Your task to perform on an android device: Show the shopping cart on amazon.com. Add corsair k70 to the cart on amazon.com Image 0: 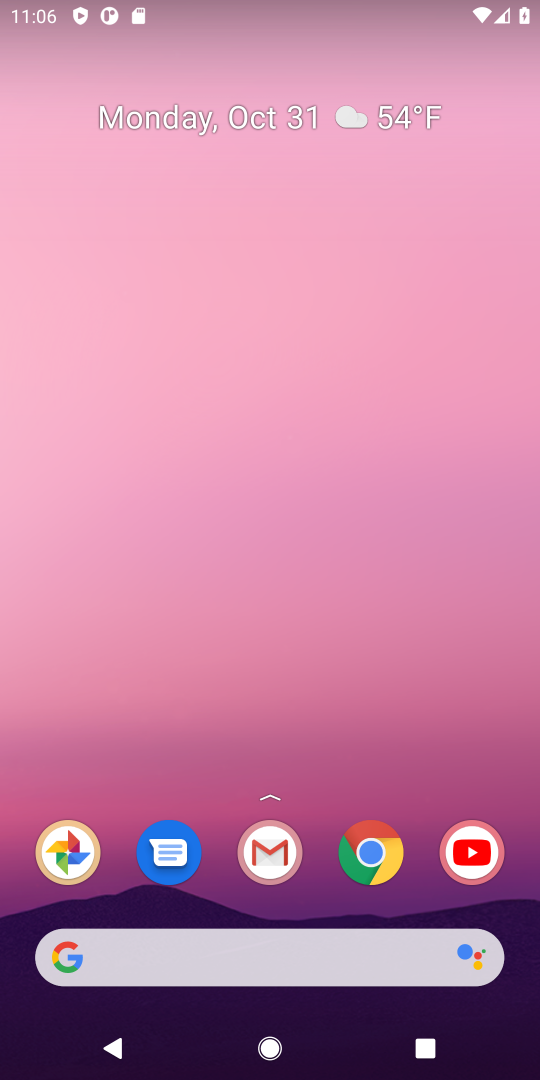
Step 0: click (373, 854)
Your task to perform on an android device: Show the shopping cart on amazon.com. Add corsair k70 to the cart on amazon.com Image 1: 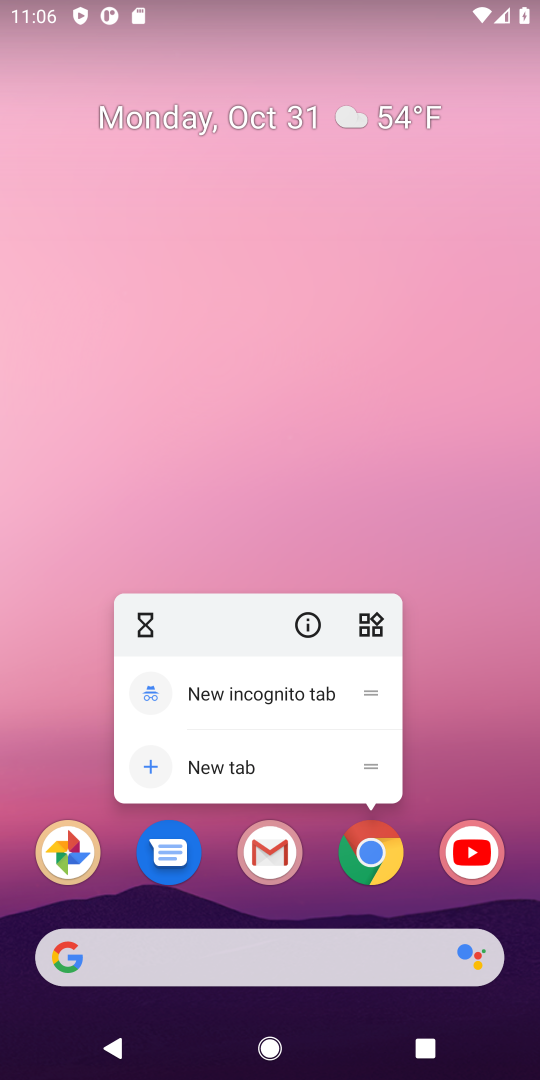
Step 1: click (375, 861)
Your task to perform on an android device: Show the shopping cart on amazon.com. Add corsair k70 to the cart on amazon.com Image 2: 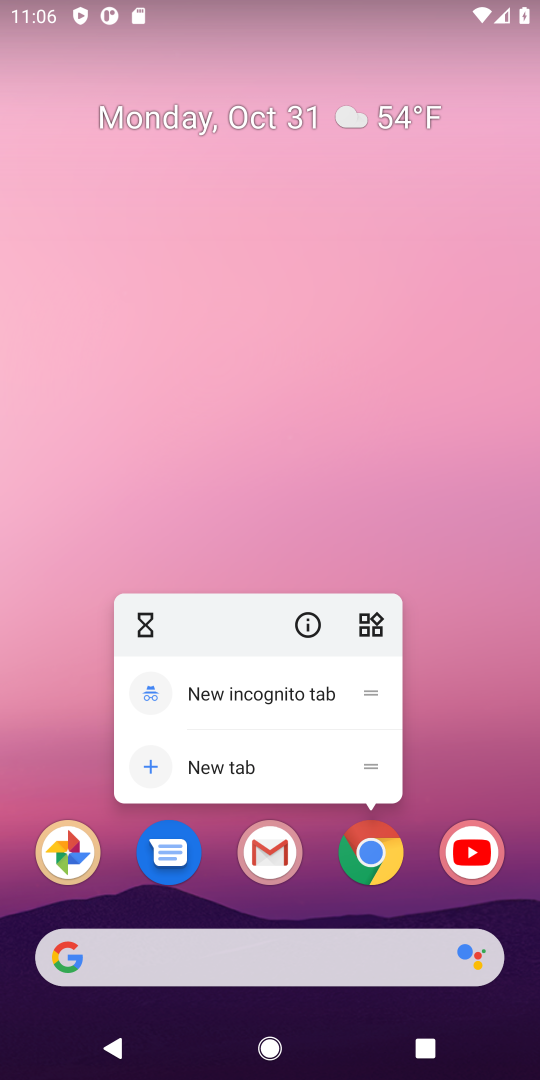
Step 2: click (360, 881)
Your task to perform on an android device: Show the shopping cart on amazon.com. Add corsair k70 to the cart on amazon.com Image 3: 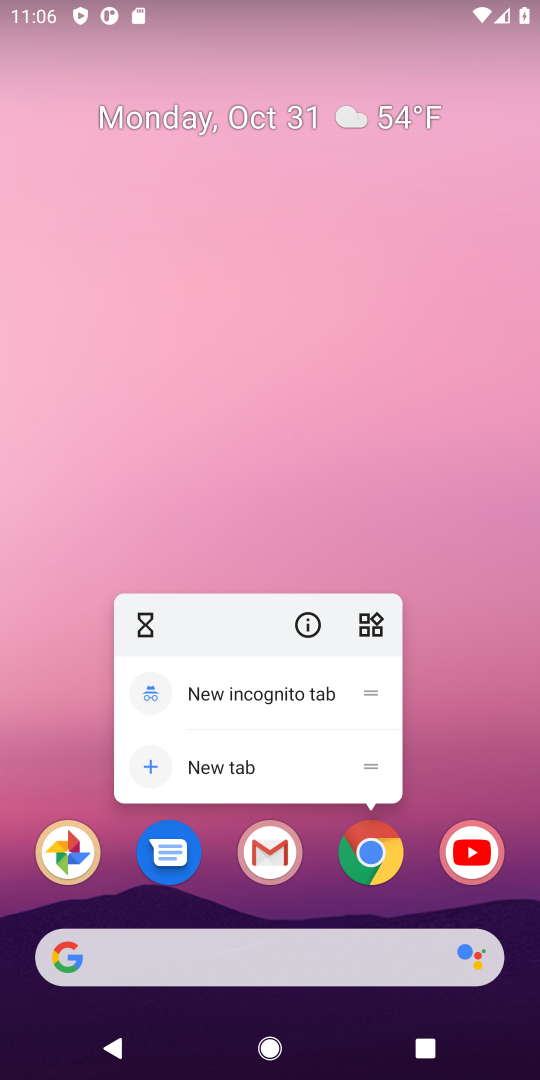
Step 3: click (379, 863)
Your task to perform on an android device: Show the shopping cart on amazon.com. Add corsair k70 to the cart on amazon.com Image 4: 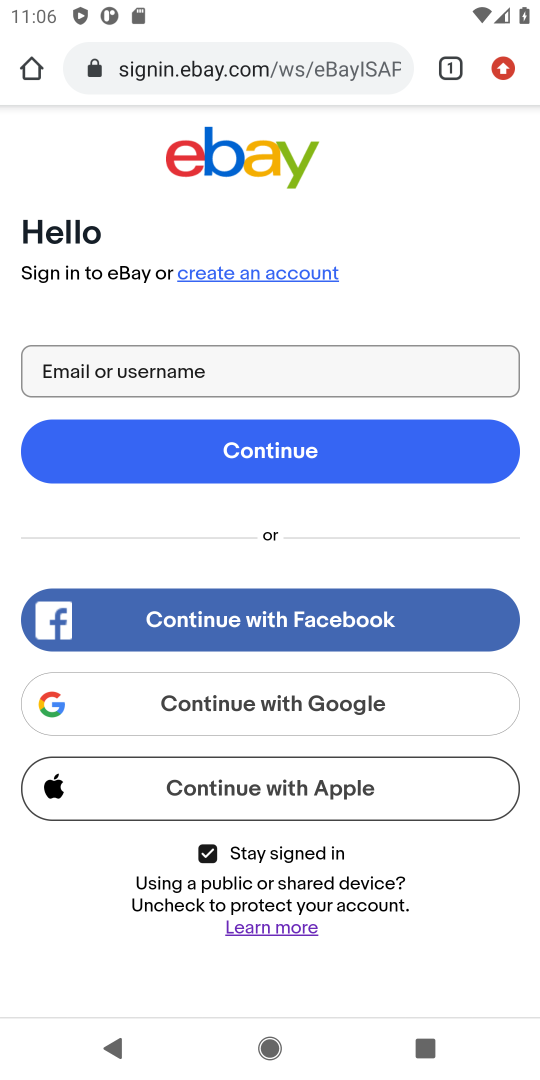
Step 4: click (251, 62)
Your task to perform on an android device: Show the shopping cart on amazon.com. Add corsair k70 to the cart on amazon.com Image 5: 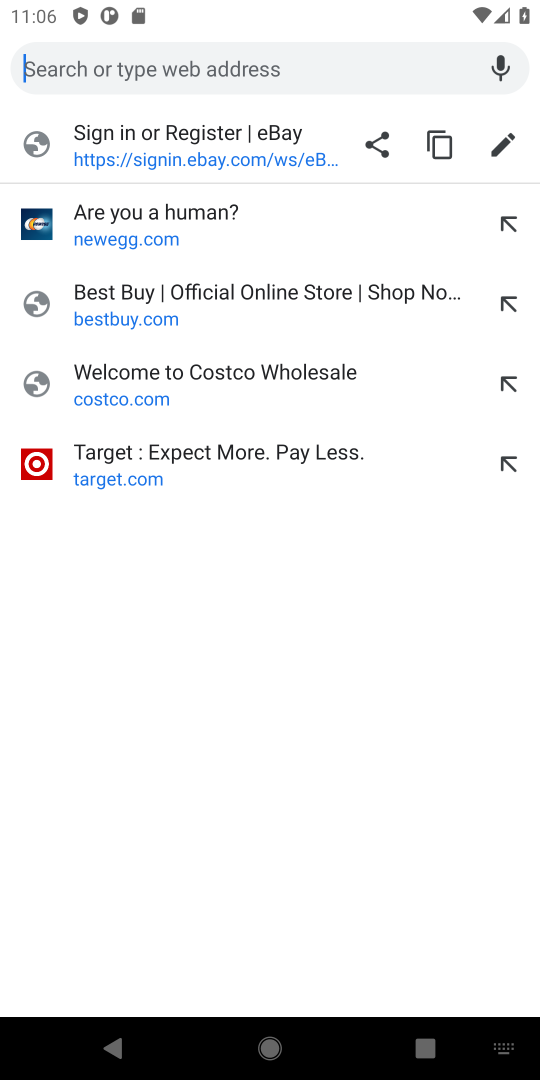
Step 5: type "amazon.com"
Your task to perform on an android device: Show the shopping cart on amazon.com. Add corsair k70 to the cart on amazon.com Image 6: 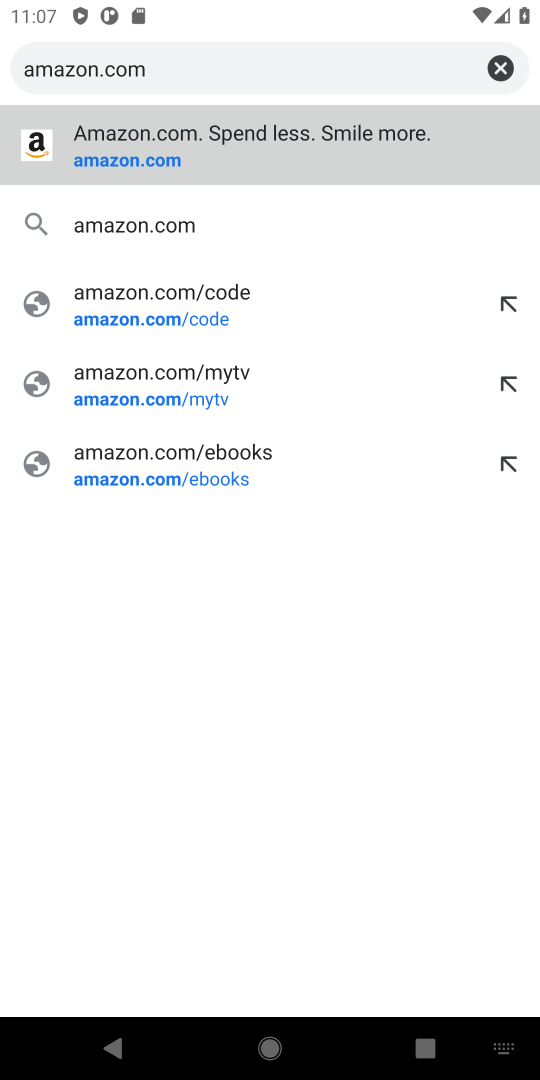
Step 6: type ""
Your task to perform on an android device: Show the shopping cart on amazon.com. Add corsair k70 to the cart on amazon.com Image 7: 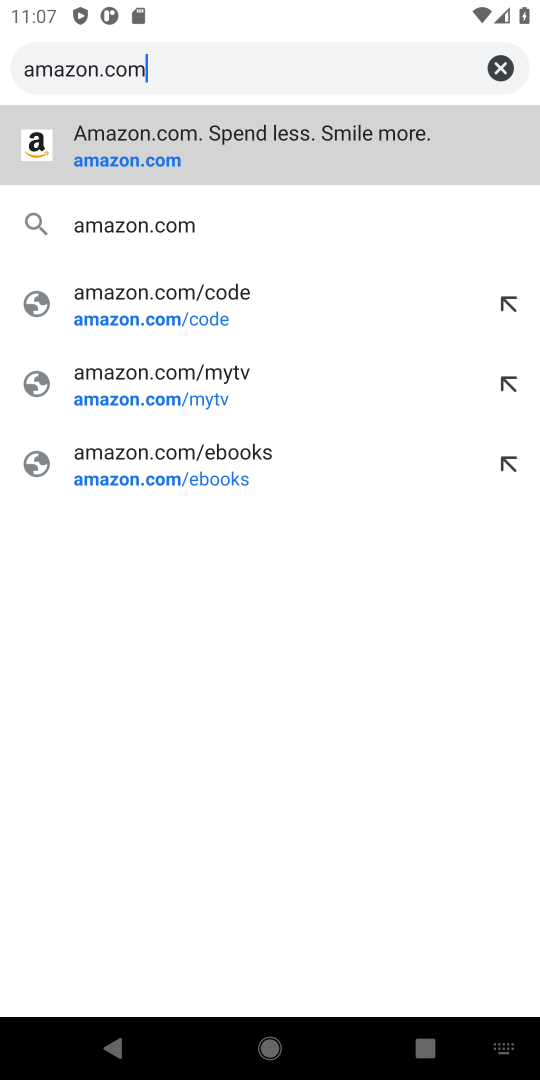
Step 7: press enter
Your task to perform on an android device: Show the shopping cart on amazon.com. Add corsair k70 to the cart on amazon.com Image 8: 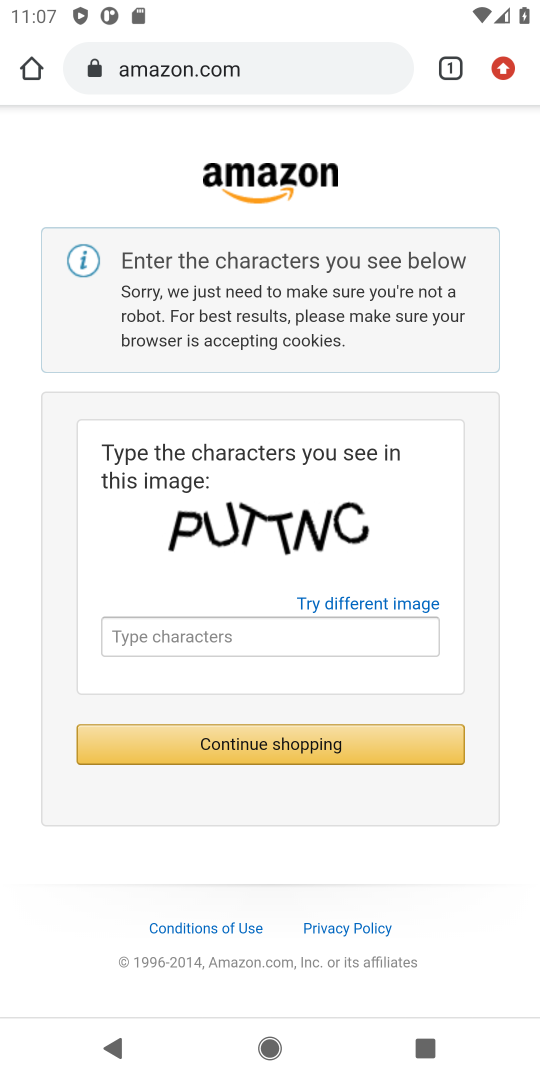
Step 8: click (222, 634)
Your task to perform on an android device: Show the shopping cart on amazon.com. Add corsair k70 to the cart on amazon.com Image 9: 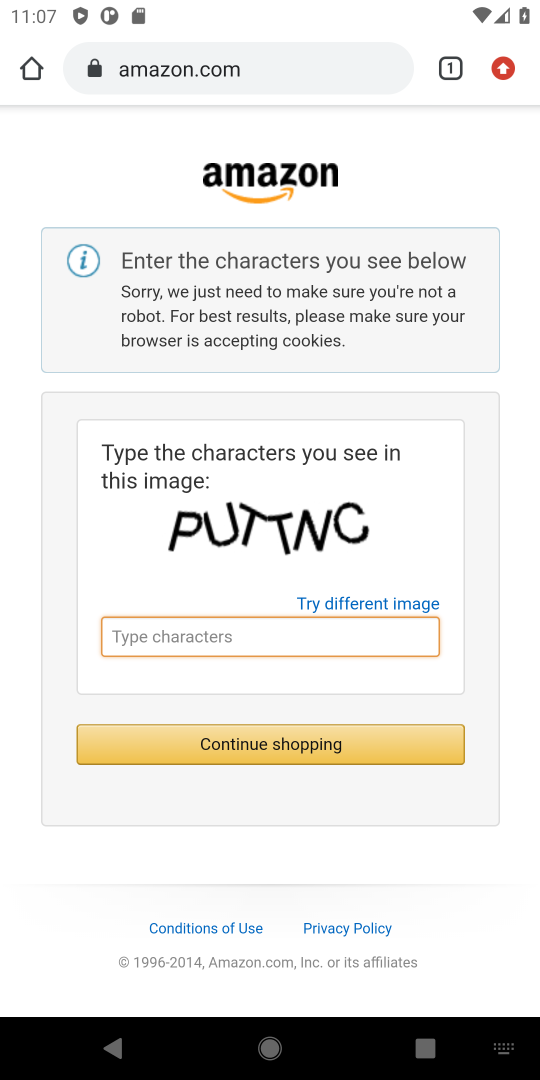
Step 9: type "PUTTNC"
Your task to perform on an android device: Show the shopping cart on amazon.com. Add corsair k70 to the cart on amazon.com Image 10: 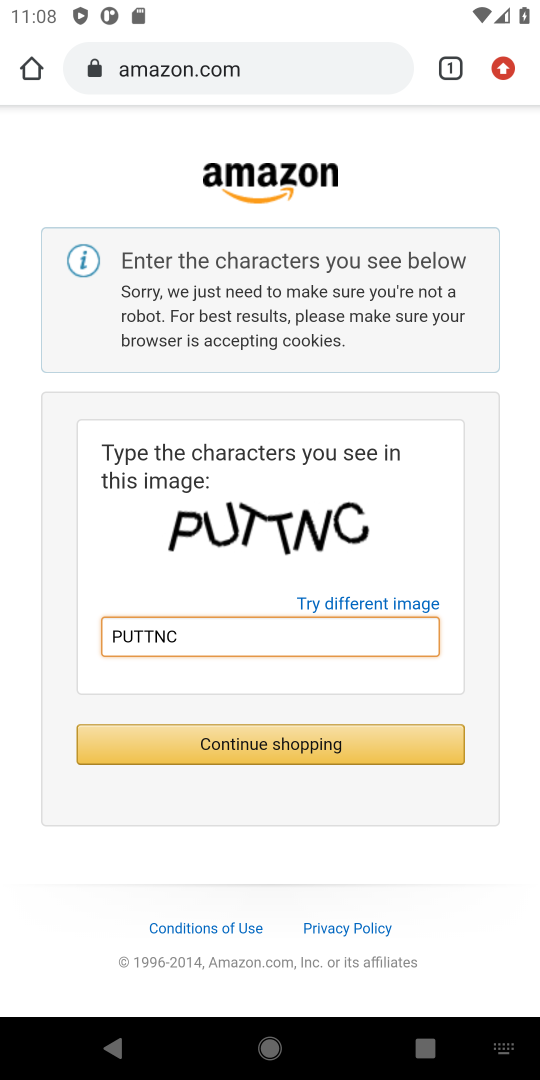
Step 10: click (340, 738)
Your task to perform on an android device: Show the shopping cart on amazon.com. Add corsair k70 to the cart on amazon.com Image 11: 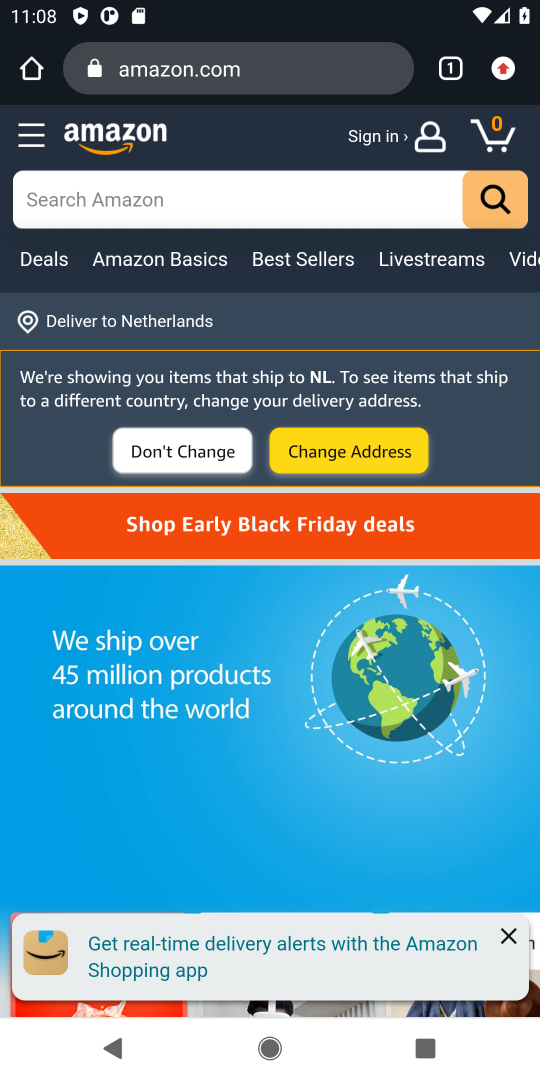
Step 11: type "corsair k70"
Your task to perform on an android device: Show the shopping cart on amazon.com. Add corsair k70 to the cart on amazon.com Image 12: 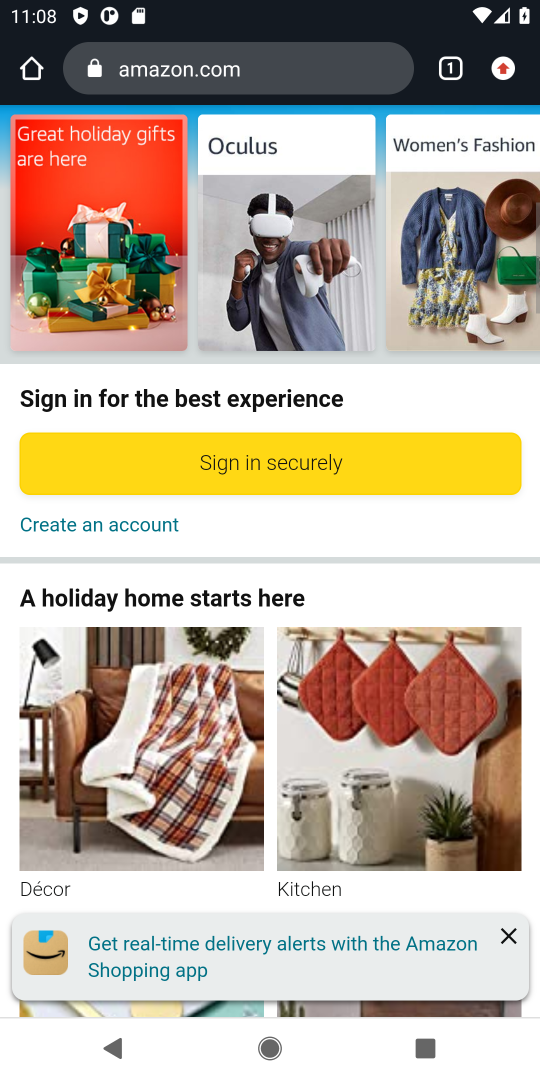
Step 12: type ""
Your task to perform on an android device: Show the shopping cart on amazon.com. Add corsair k70 to the cart on amazon.com Image 13: 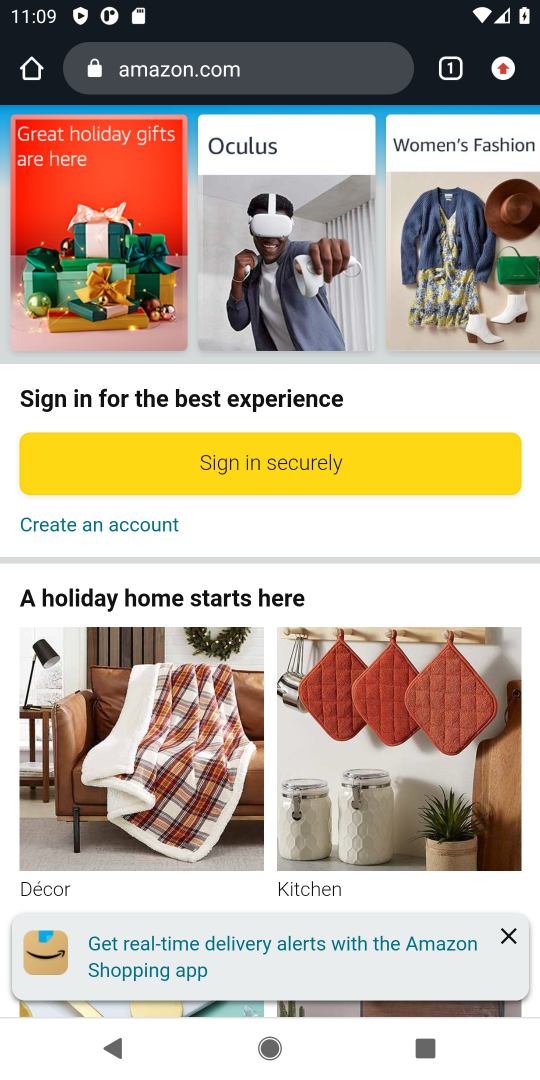
Step 13: drag from (357, 347) to (352, 681)
Your task to perform on an android device: Show the shopping cart on amazon.com. Add corsair k70 to the cart on amazon.com Image 14: 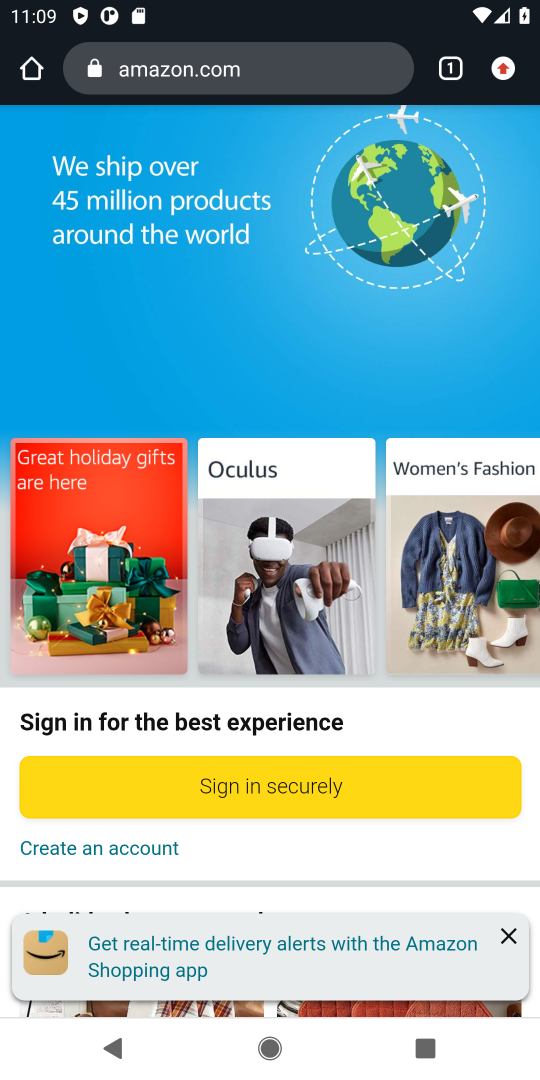
Step 14: drag from (250, 379) to (272, 973)
Your task to perform on an android device: Show the shopping cart on amazon.com. Add corsair k70 to the cart on amazon.com Image 15: 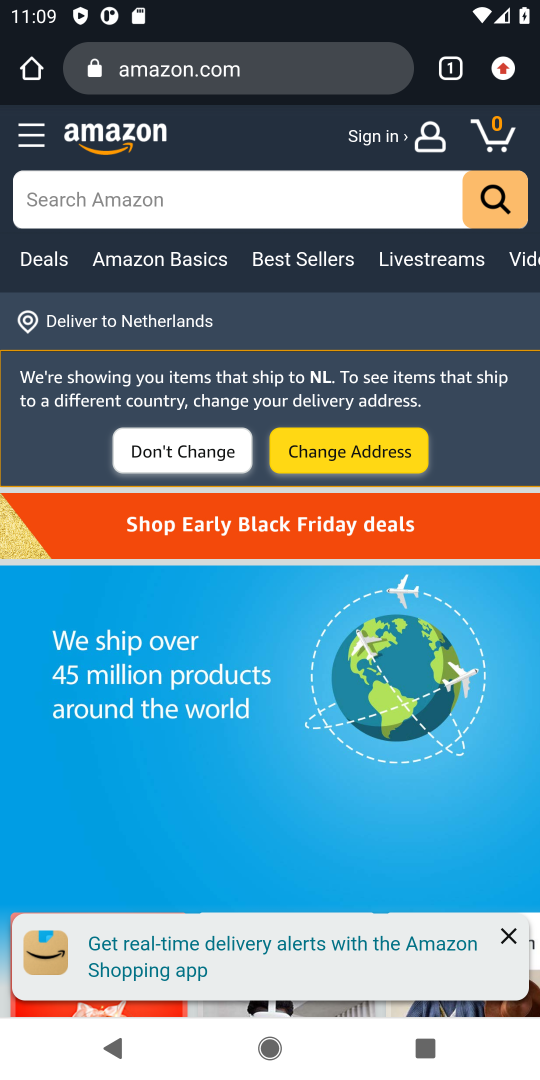
Step 15: click (244, 210)
Your task to perform on an android device: Show the shopping cart on amazon.com. Add corsair k70 to the cart on amazon.com Image 16: 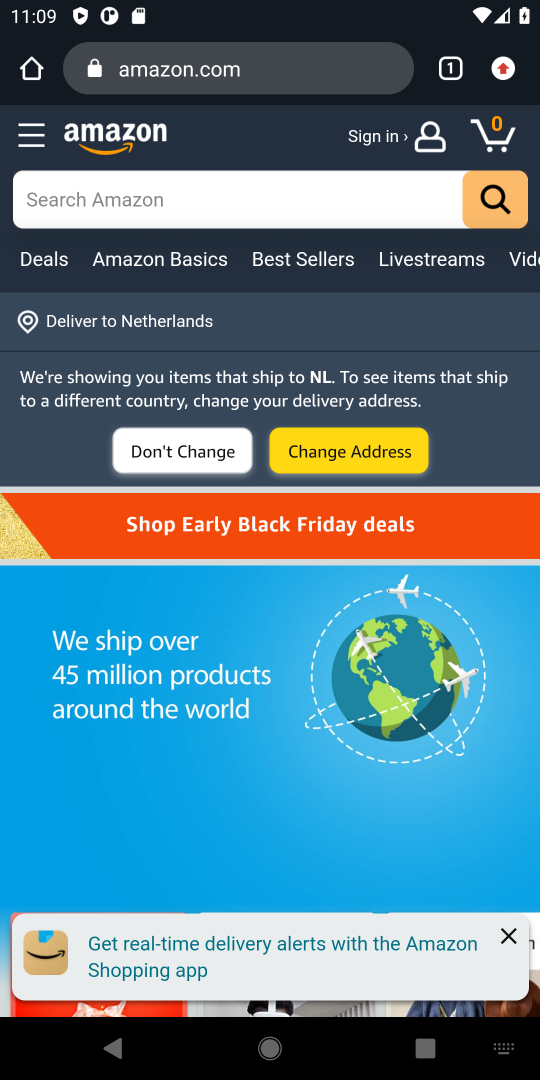
Step 16: type "corsair k70"
Your task to perform on an android device: Show the shopping cart on amazon.com. Add corsair k70 to the cart on amazon.com Image 17: 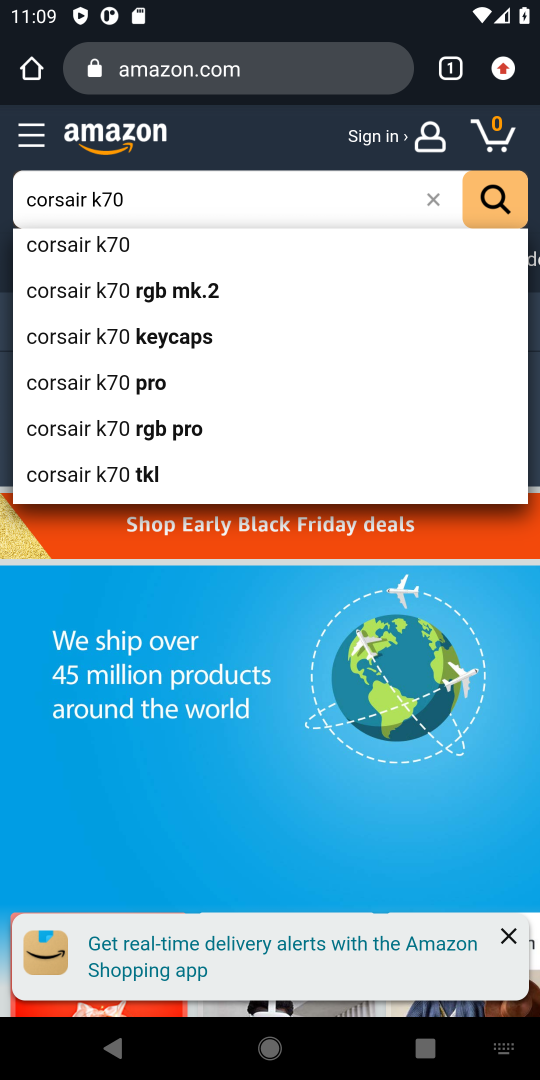
Step 17: click (478, 198)
Your task to perform on an android device: Show the shopping cart on amazon.com. Add corsair k70 to the cart on amazon.com Image 18: 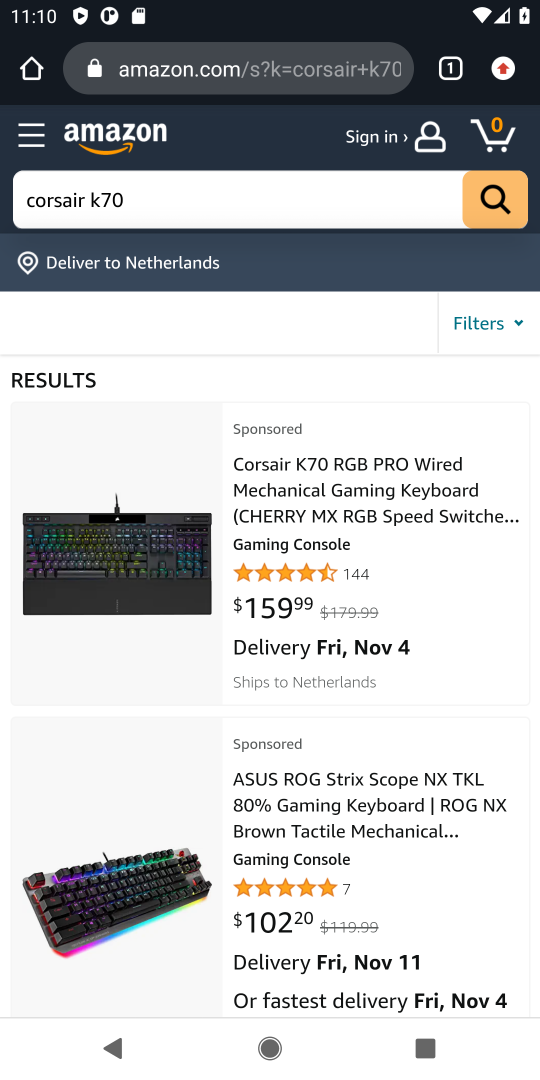
Step 18: click (314, 508)
Your task to perform on an android device: Show the shopping cart on amazon.com. Add corsair k70 to the cart on amazon.com Image 19: 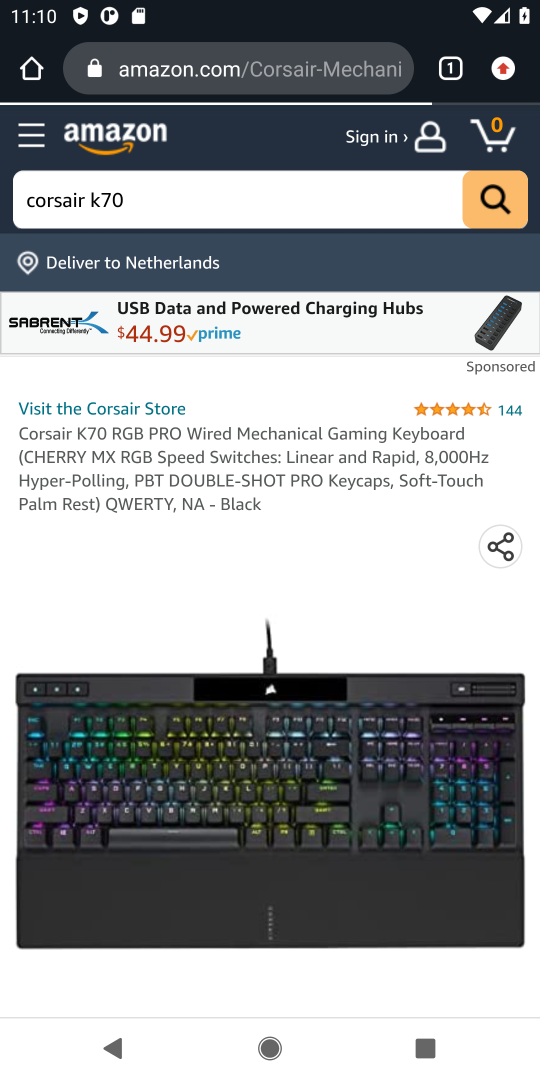
Step 19: drag from (292, 751) to (253, 114)
Your task to perform on an android device: Show the shopping cart on amazon.com. Add corsair k70 to the cart on amazon.com Image 20: 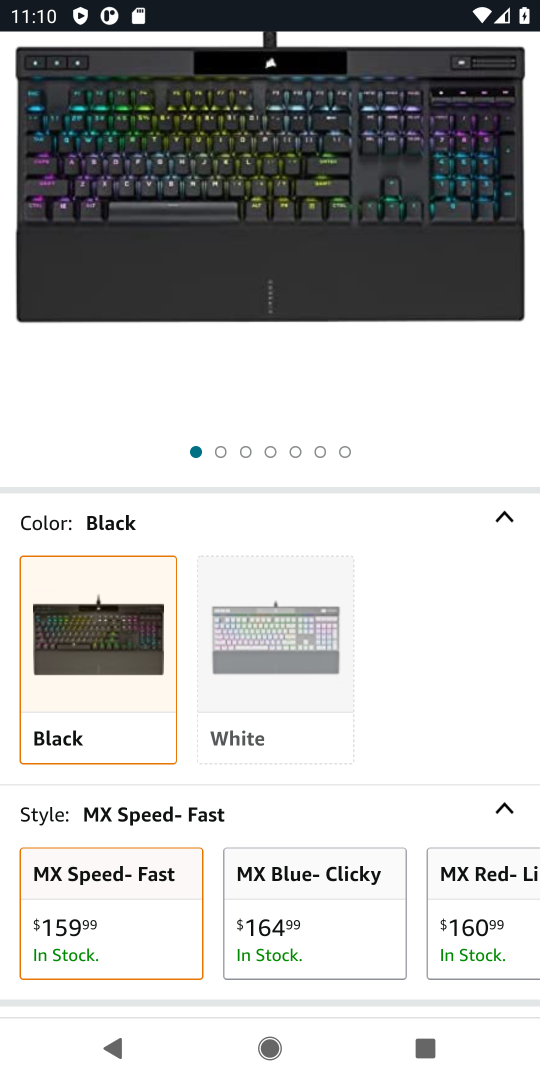
Step 20: drag from (337, 734) to (325, 198)
Your task to perform on an android device: Show the shopping cart on amazon.com. Add corsair k70 to the cart on amazon.com Image 21: 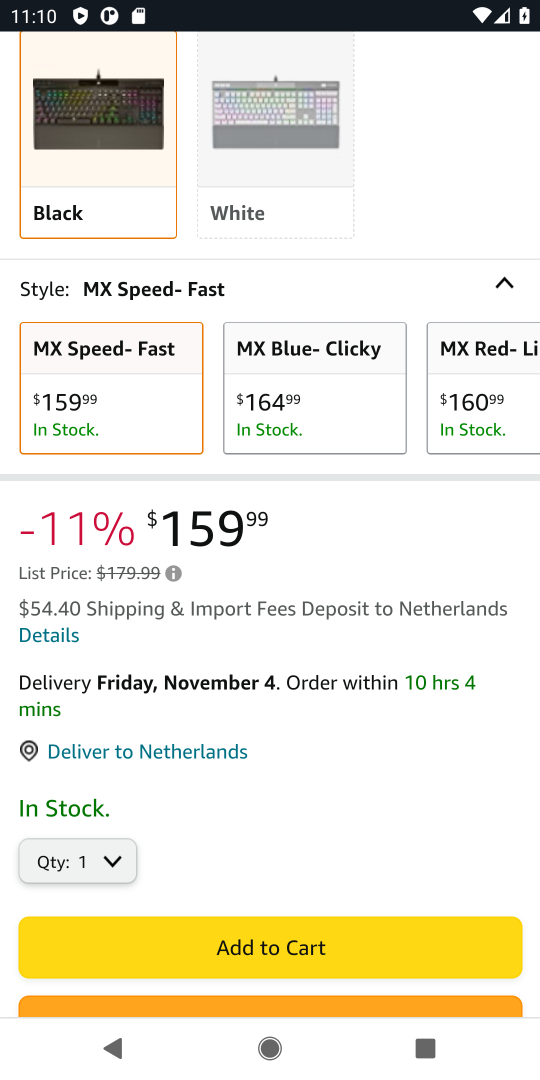
Step 21: click (304, 945)
Your task to perform on an android device: Show the shopping cart on amazon.com. Add corsair k70 to the cart on amazon.com Image 22: 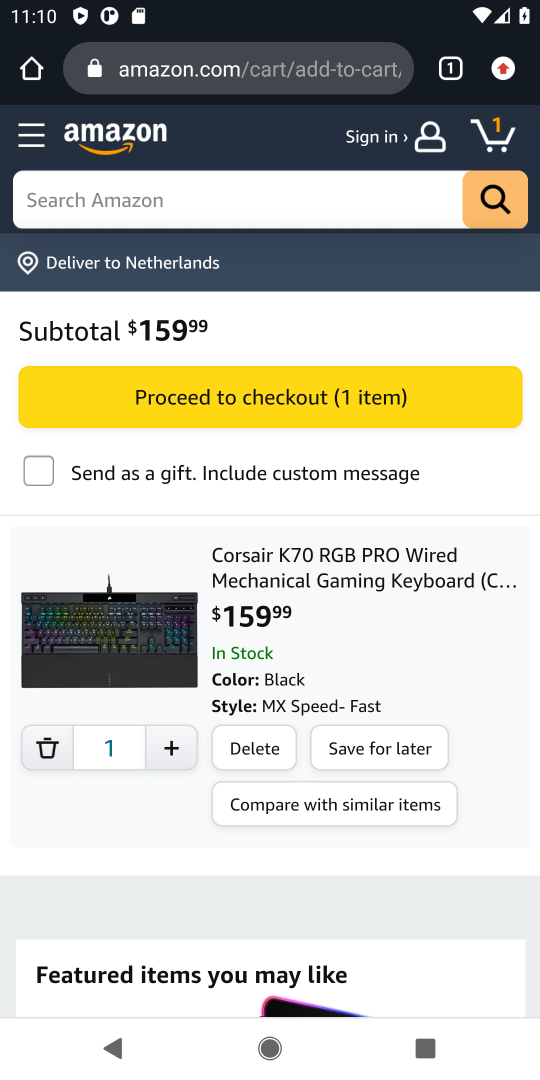
Step 22: task complete